Your task to perform on an android device: Open the stopwatch Image 0: 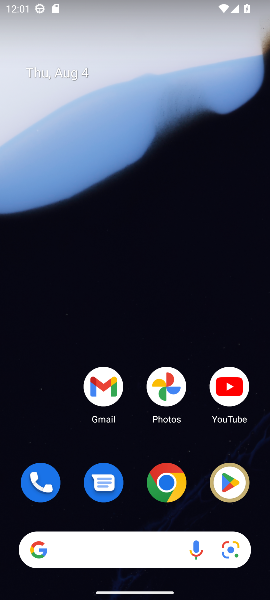
Step 0: drag from (140, 446) to (131, 161)
Your task to perform on an android device: Open the stopwatch Image 1: 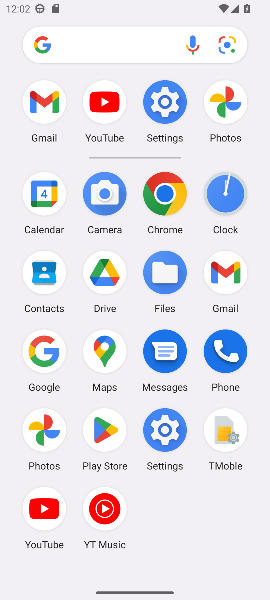
Step 1: click (221, 189)
Your task to perform on an android device: Open the stopwatch Image 2: 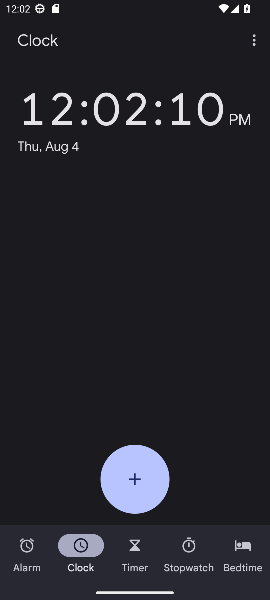
Step 2: click (190, 543)
Your task to perform on an android device: Open the stopwatch Image 3: 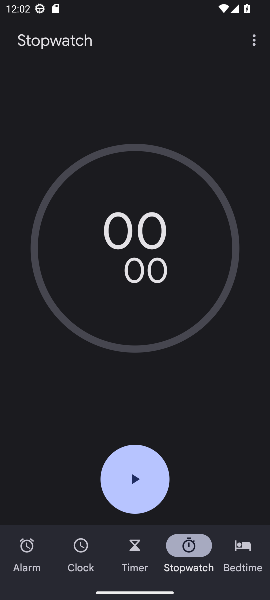
Step 3: task complete